Your task to perform on an android device: change alarm snooze length Image 0: 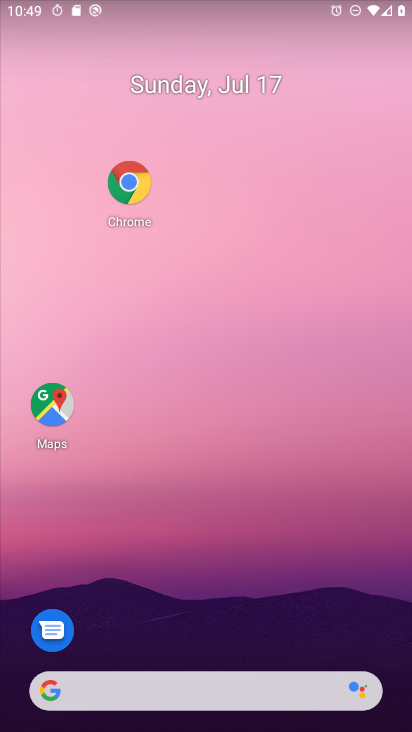
Step 0: drag from (103, 580) to (239, 19)
Your task to perform on an android device: change alarm snooze length Image 1: 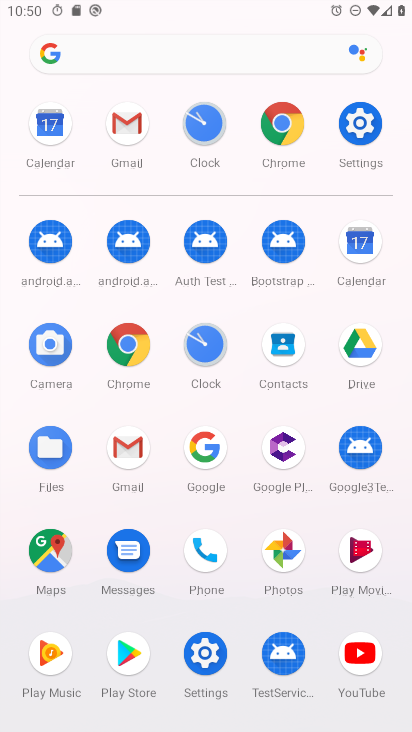
Step 1: click (212, 333)
Your task to perform on an android device: change alarm snooze length Image 2: 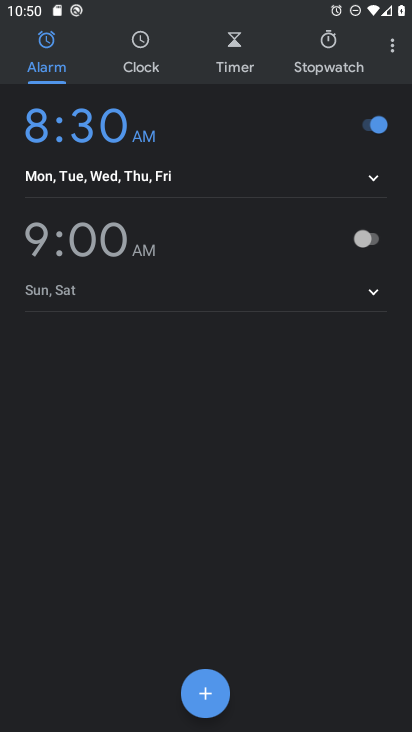
Step 2: click (393, 40)
Your task to perform on an android device: change alarm snooze length Image 3: 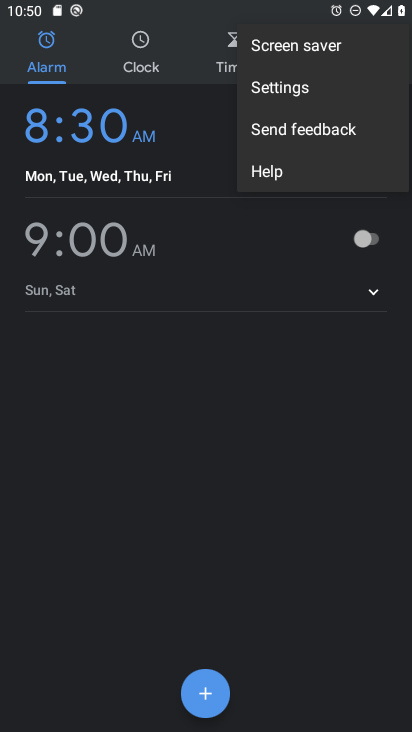
Step 3: click (300, 102)
Your task to perform on an android device: change alarm snooze length Image 4: 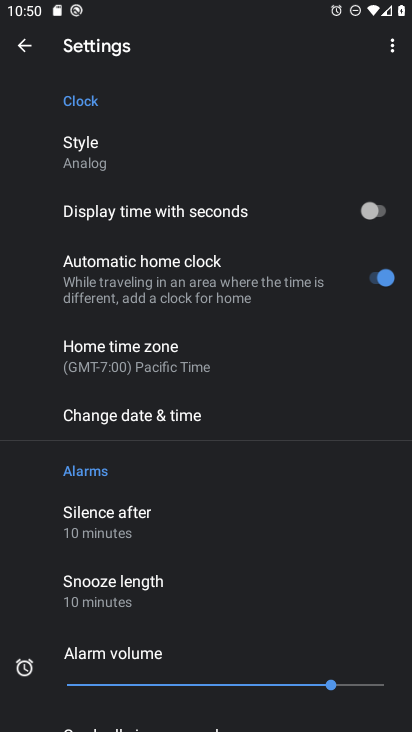
Step 4: click (183, 599)
Your task to perform on an android device: change alarm snooze length Image 5: 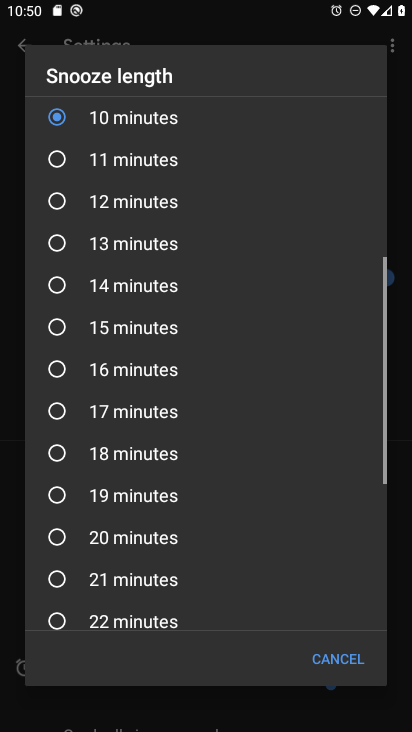
Step 5: click (122, 548)
Your task to perform on an android device: change alarm snooze length Image 6: 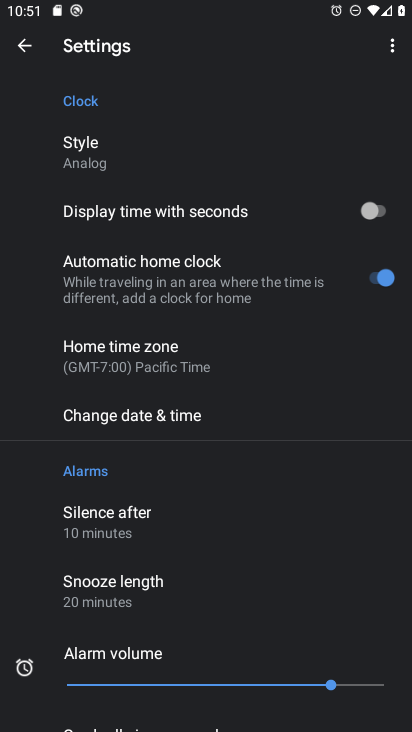
Step 6: task complete